Your task to perform on an android device: turn on airplane mode Image 0: 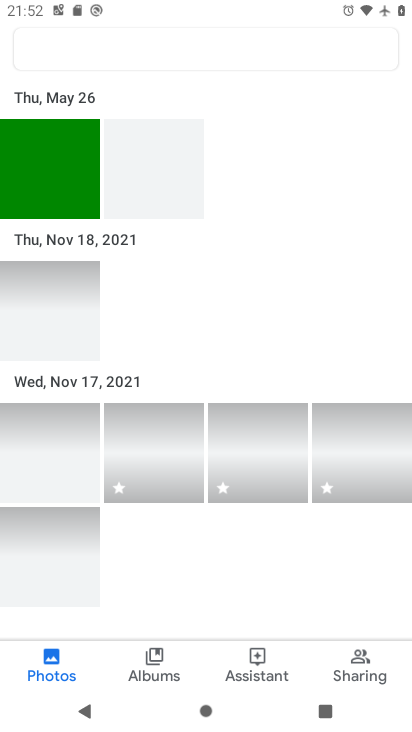
Step 0: press home button
Your task to perform on an android device: turn on airplane mode Image 1: 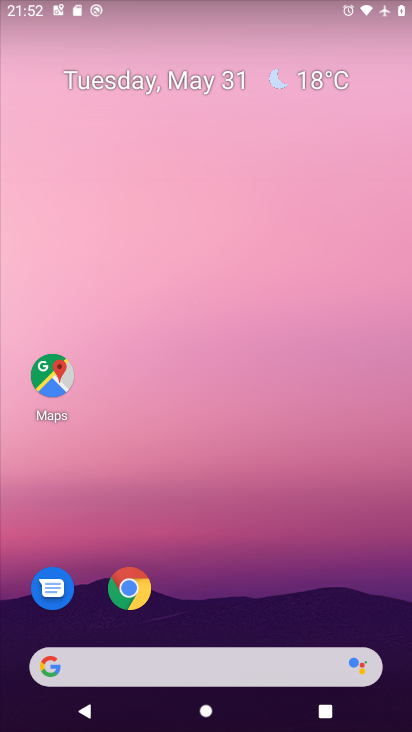
Step 1: drag from (156, 667) to (313, 50)
Your task to perform on an android device: turn on airplane mode Image 2: 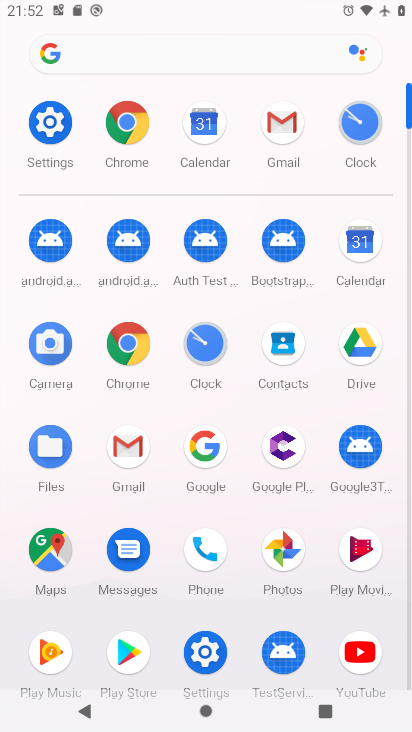
Step 2: click (53, 113)
Your task to perform on an android device: turn on airplane mode Image 3: 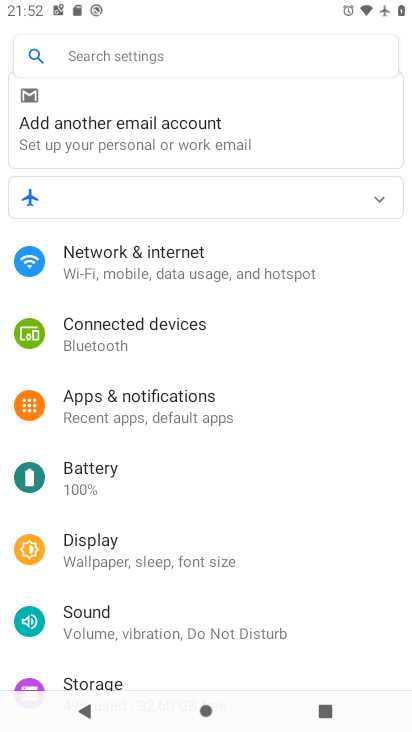
Step 3: click (160, 265)
Your task to perform on an android device: turn on airplane mode Image 4: 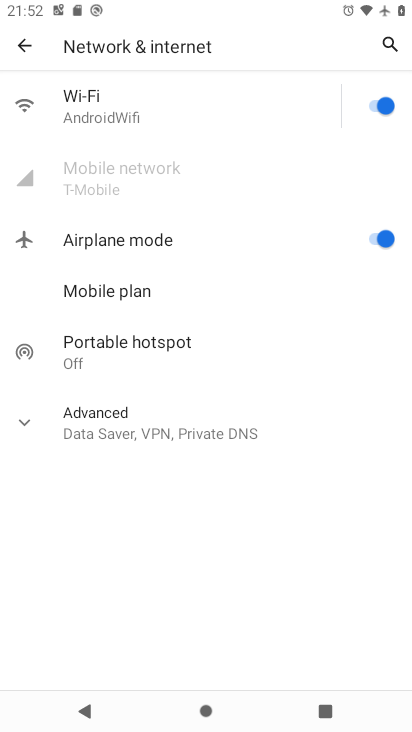
Step 4: task complete